Your task to perform on an android device: turn on showing notifications on the lock screen Image 0: 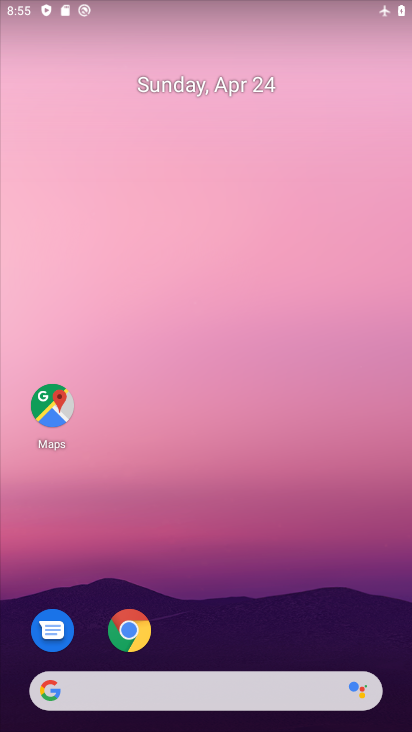
Step 0: drag from (193, 654) to (248, 223)
Your task to perform on an android device: turn on showing notifications on the lock screen Image 1: 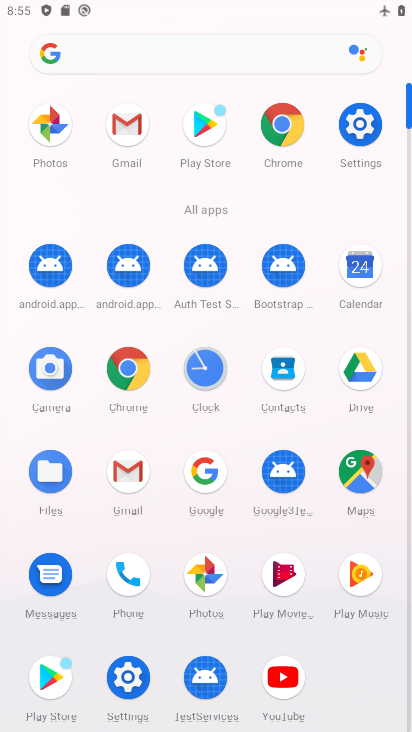
Step 1: click (121, 669)
Your task to perform on an android device: turn on showing notifications on the lock screen Image 2: 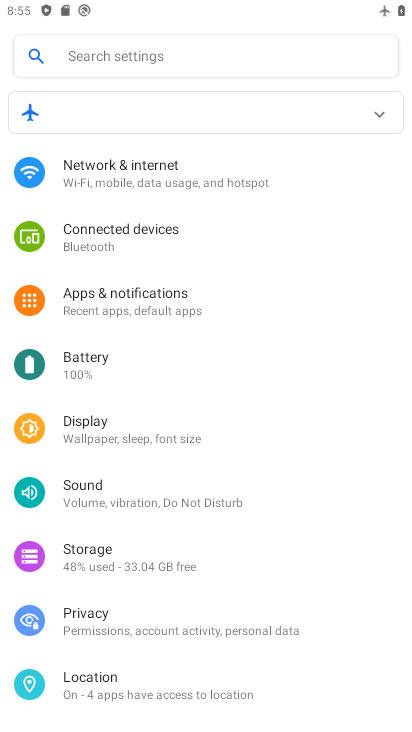
Step 2: click (143, 303)
Your task to perform on an android device: turn on showing notifications on the lock screen Image 3: 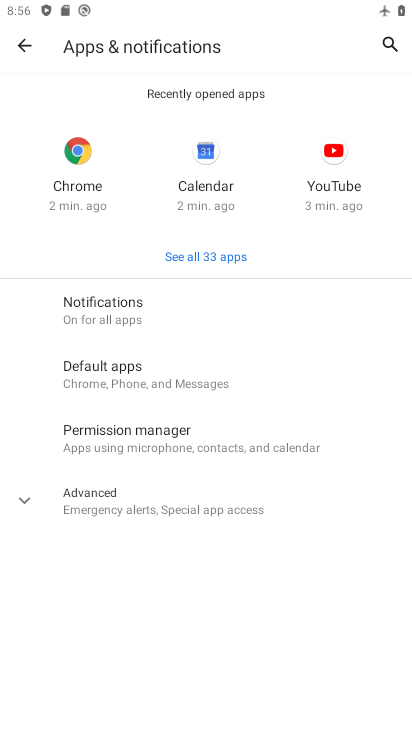
Step 3: click (111, 333)
Your task to perform on an android device: turn on showing notifications on the lock screen Image 4: 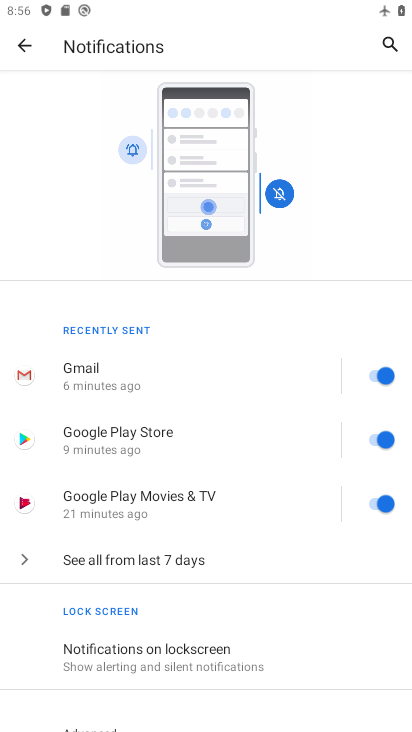
Step 4: click (176, 650)
Your task to perform on an android device: turn on showing notifications on the lock screen Image 5: 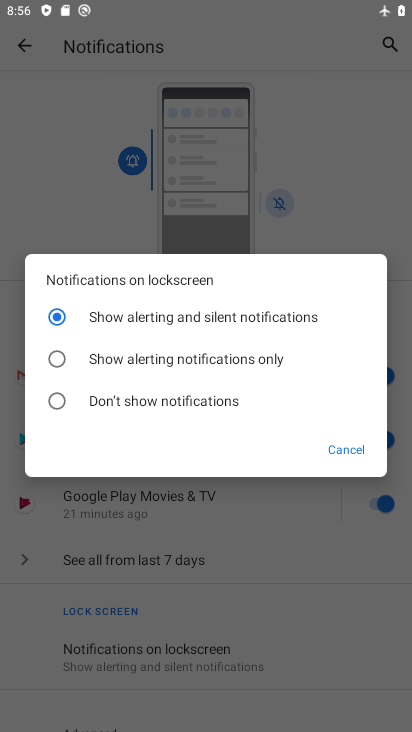
Step 5: task complete